Your task to perform on an android device: What's on the menu at IHOP? Image 0: 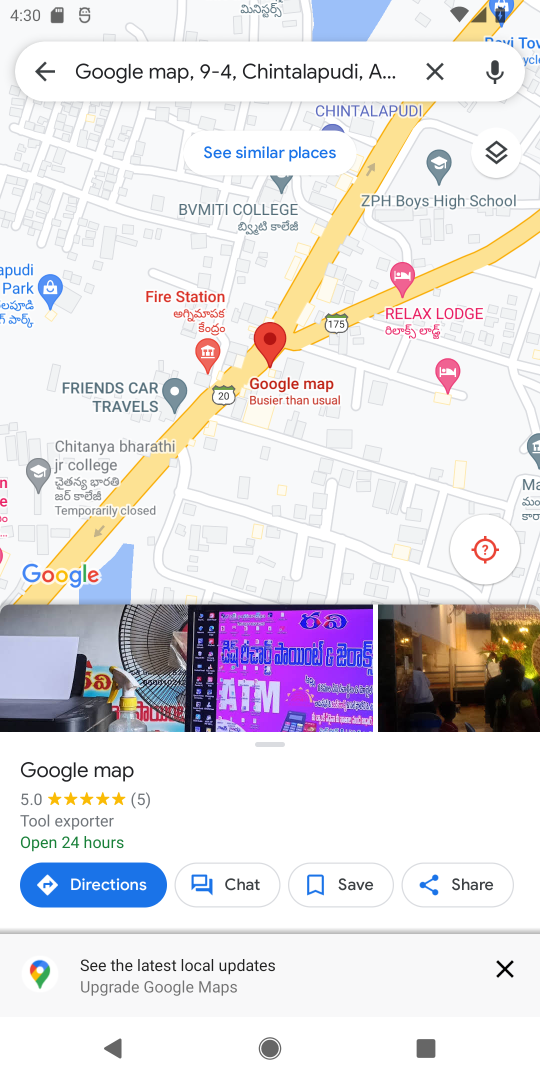
Step 0: click (506, 953)
Your task to perform on an android device: What's on the menu at IHOP? Image 1: 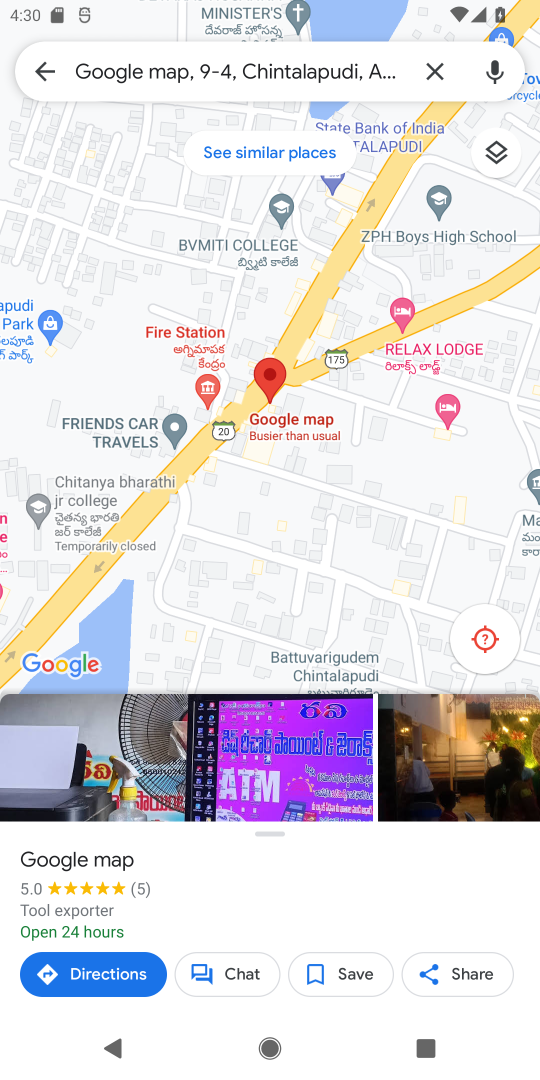
Step 1: click (437, 64)
Your task to perform on an android device: What's on the menu at IHOP? Image 2: 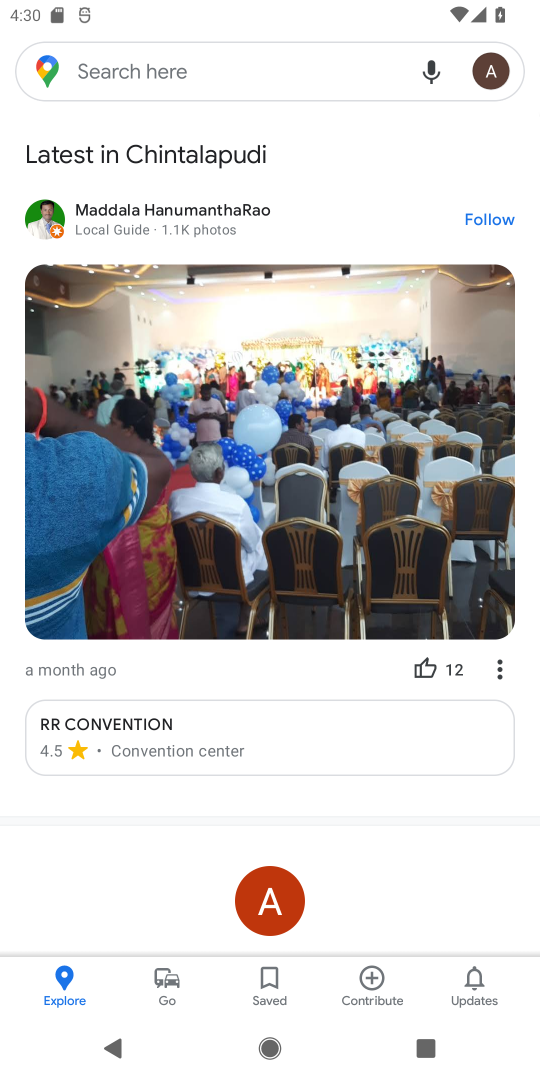
Step 2: press back button
Your task to perform on an android device: What's on the menu at IHOP? Image 3: 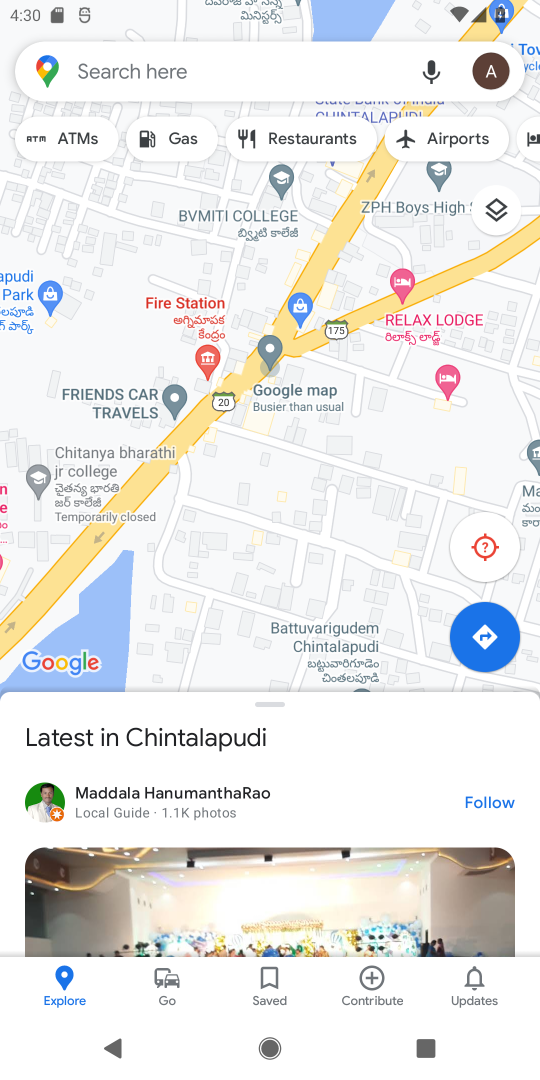
Step 3: press back button
Your task to perform on an android device: What's on the menu at IHOP? Image 4: 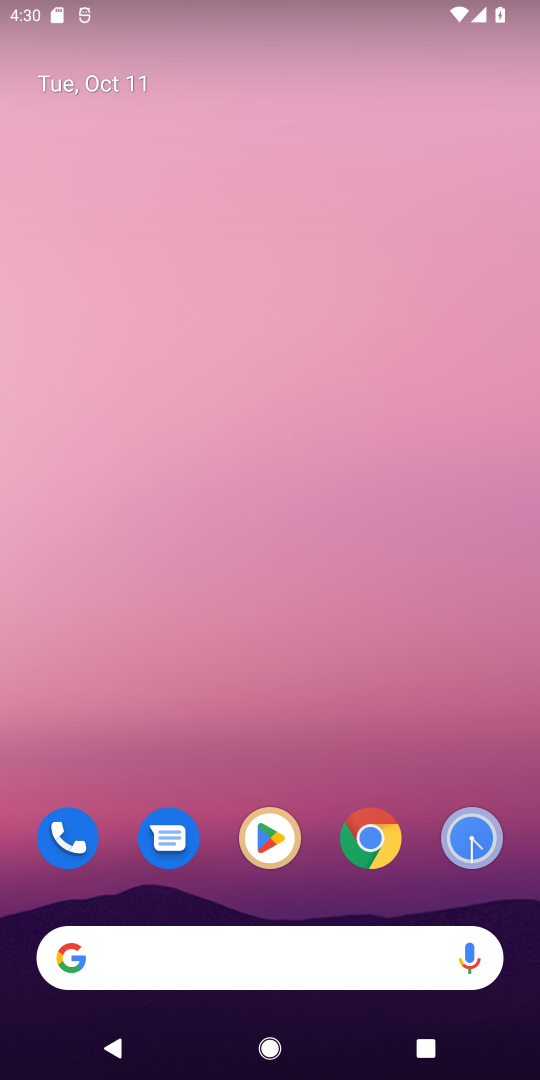
Step 4: click (333, 846)
Your task to perform on an android device: What's on the menu at IHOP? Image 5: 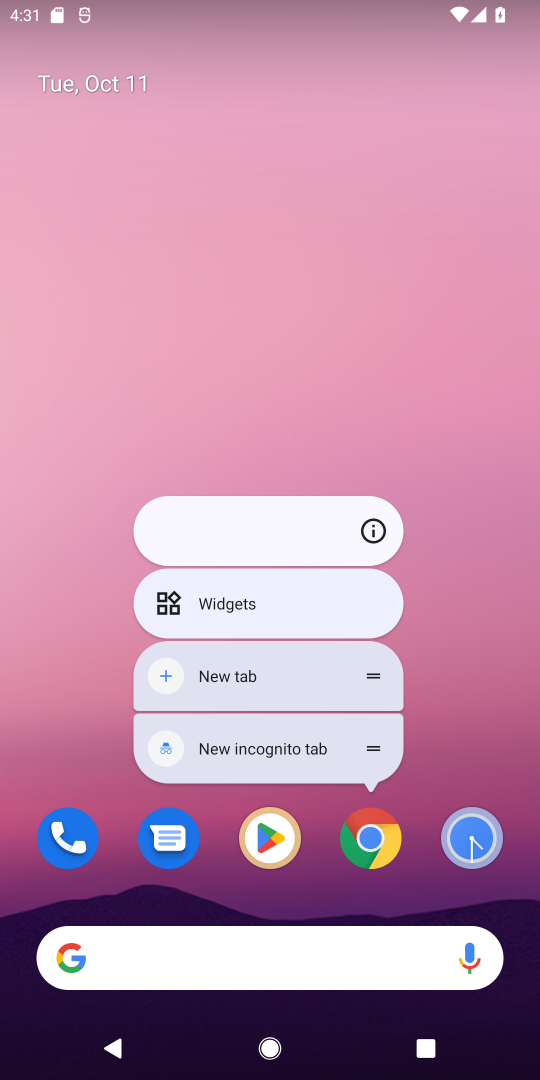
Step 5: click (381, 836)
Your task to perform on an android device: What's on the menu at IHOP? Image 6: 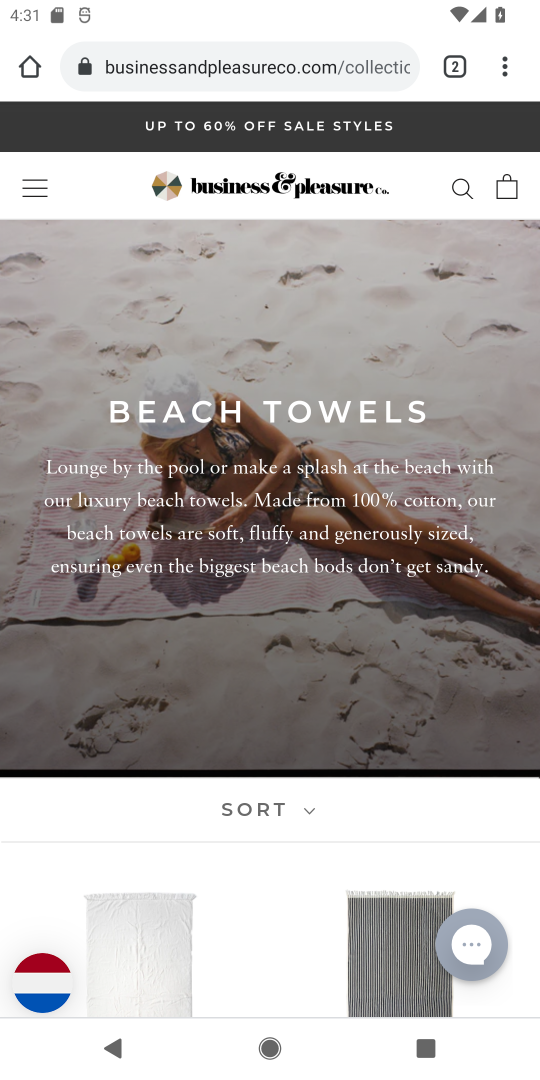
Step 6: click (379, 63)
Your task to perform on an android device: What's on the menu at IHOP? Image 7: 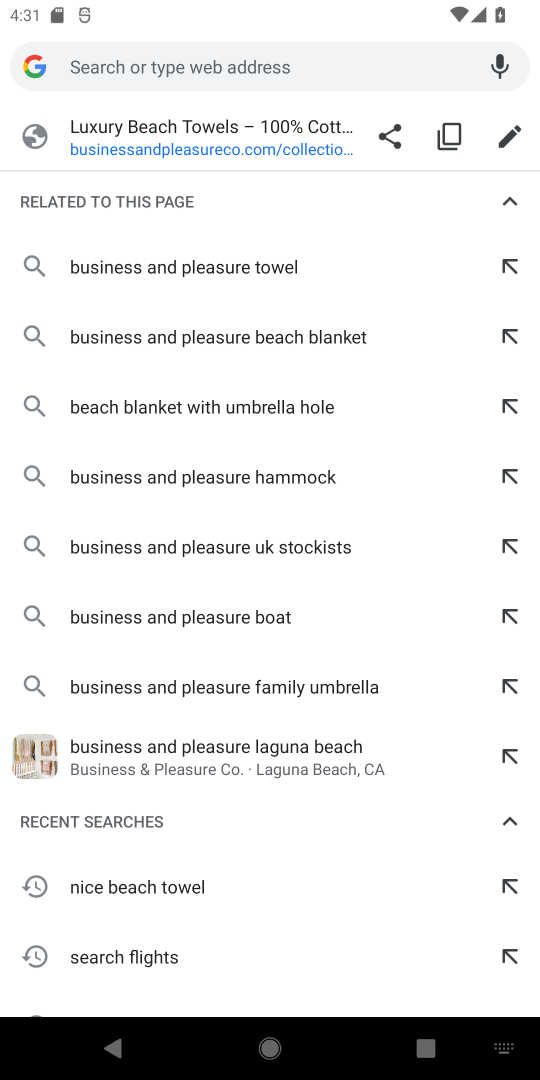
Step 7: type "menu at iHop"
Your task to perform on an android device: What's on the menu at IHOP? Image 8: 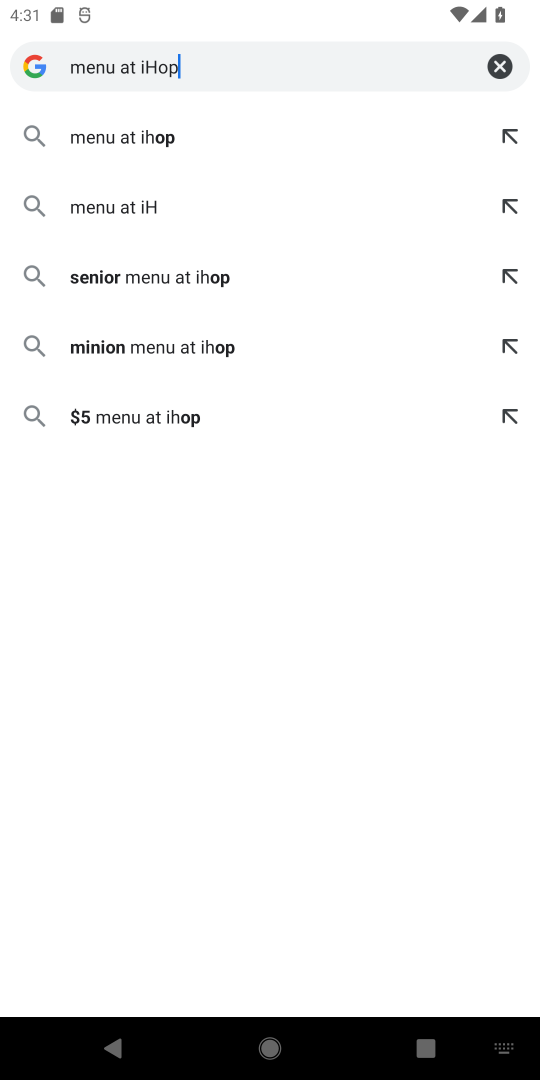
Step 8: type ""
Your task to perform on an android device: What's on the menu at IHOP? Image 9: 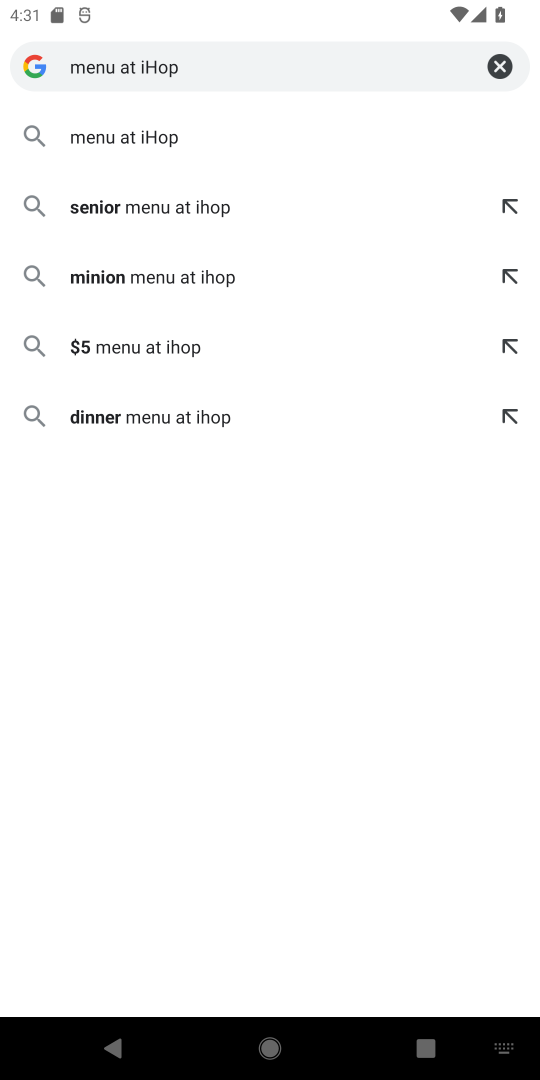
Step 9: click (89, 145)
Your task to perform on an android device: What's on the menu at IHOP? Image 10: 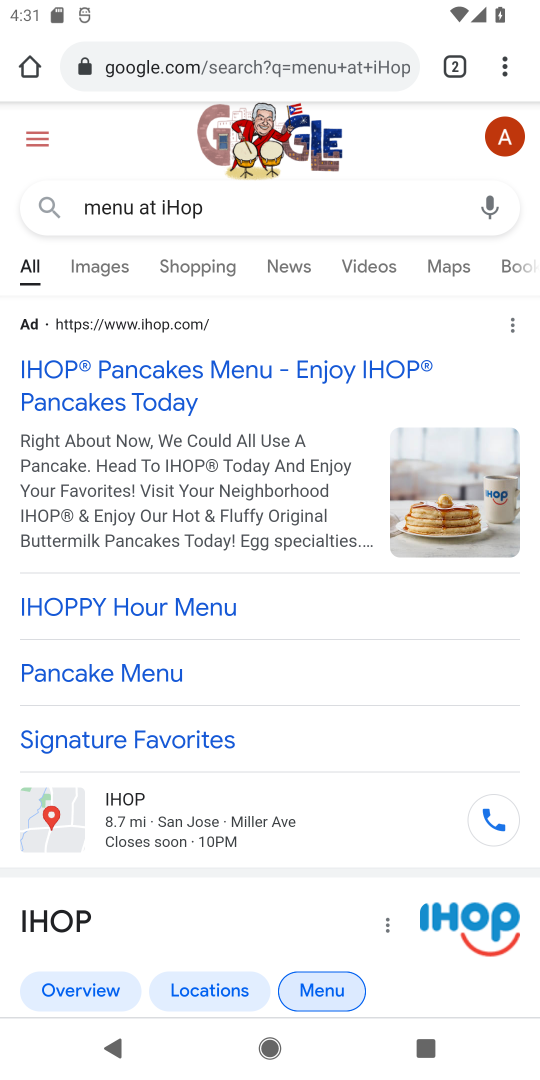
Step 10: click (150, 366)
Your task to perform on an android device: What's on the menu at IHOP? Image 11: 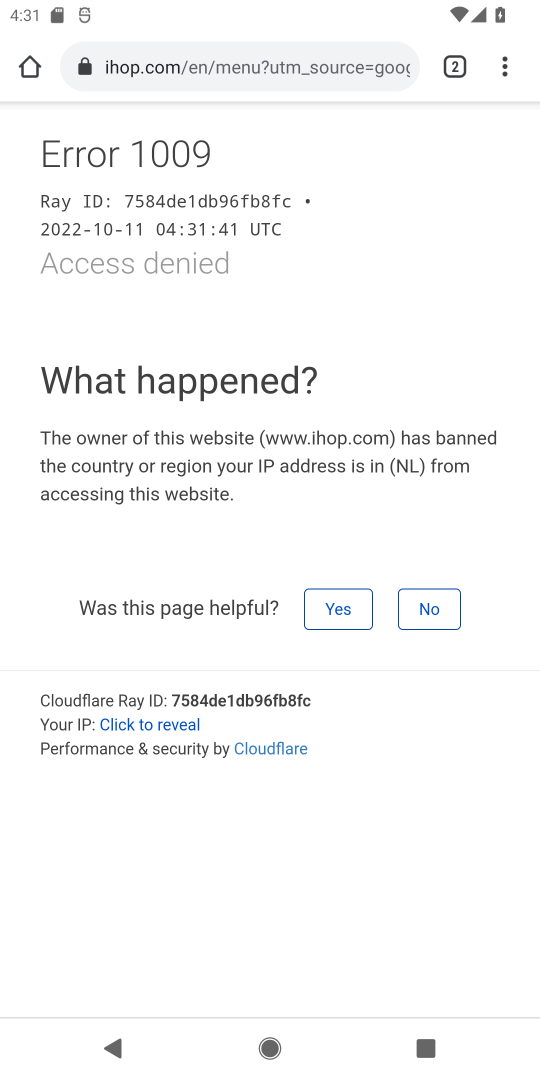
Step 11: press back button
Your task to perform on an android device: What's on the menu at IHOP? Image 12: 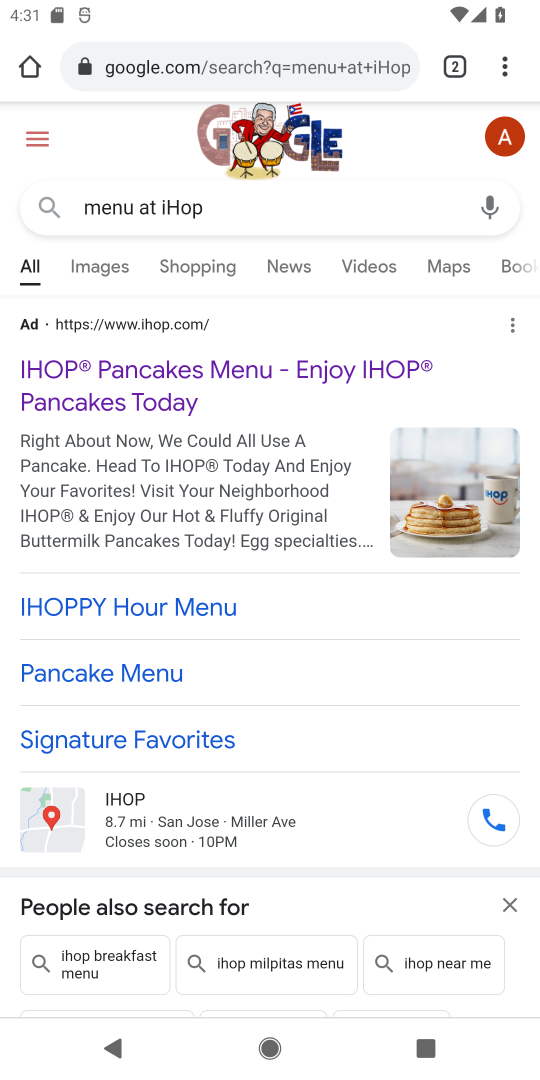
Step 12: drag from (348, 653) to (360, 152)
Your task to perform on an android device: What's on the menu at IHOP? Image 13: 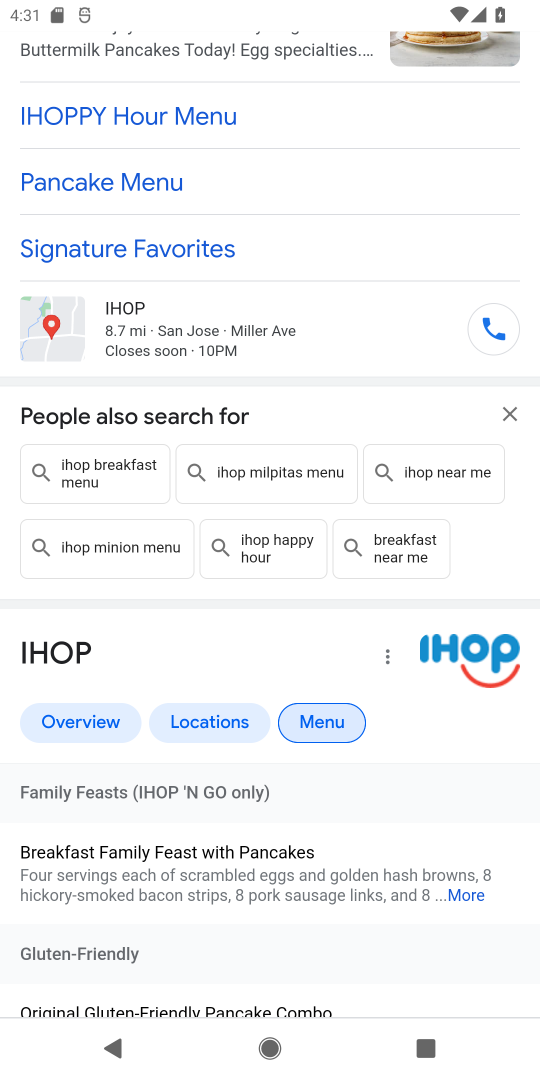
Step 13: click (55, 653)
Your task to perform on an android device: What's on the menu at IHOP? Image 14: 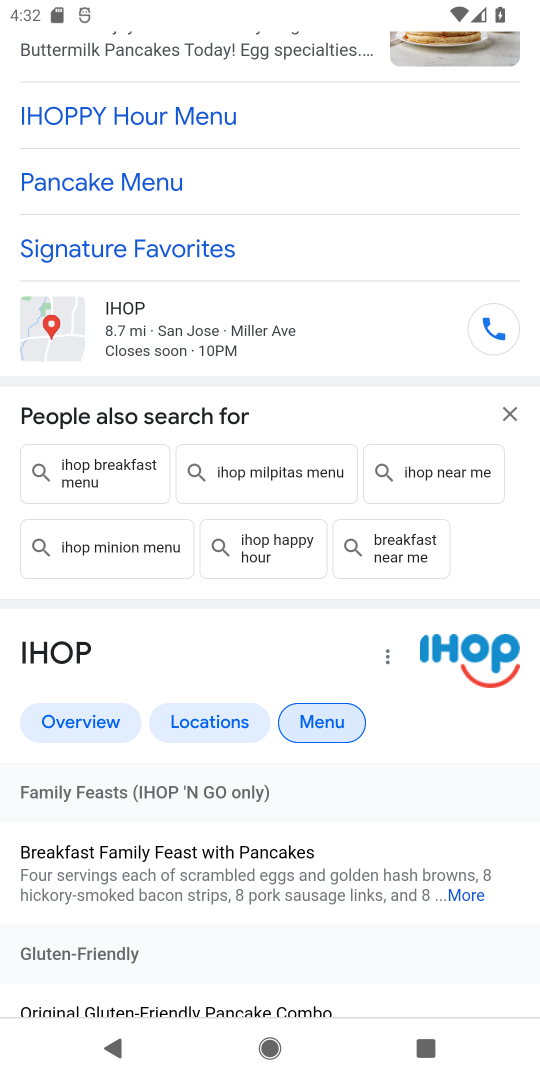
Step 14: drag from (223, 880) to (251, 422)
Your task to perform on an android device: What's on the menu at IHOP? Image 15: 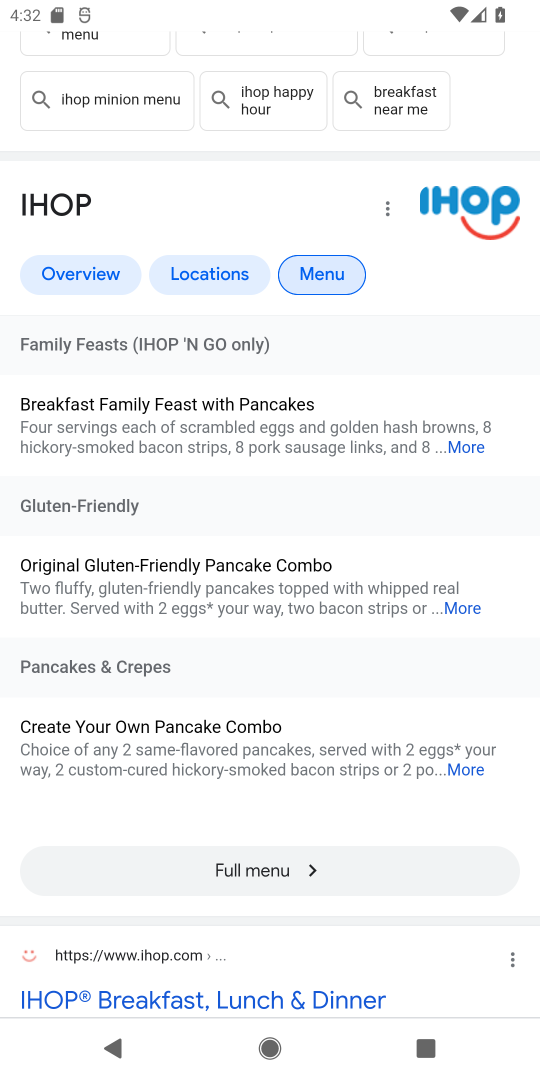
Step 15: click (259, 867)
Your task to perform on an android device: What's on the menu at IHOP? Image 16: 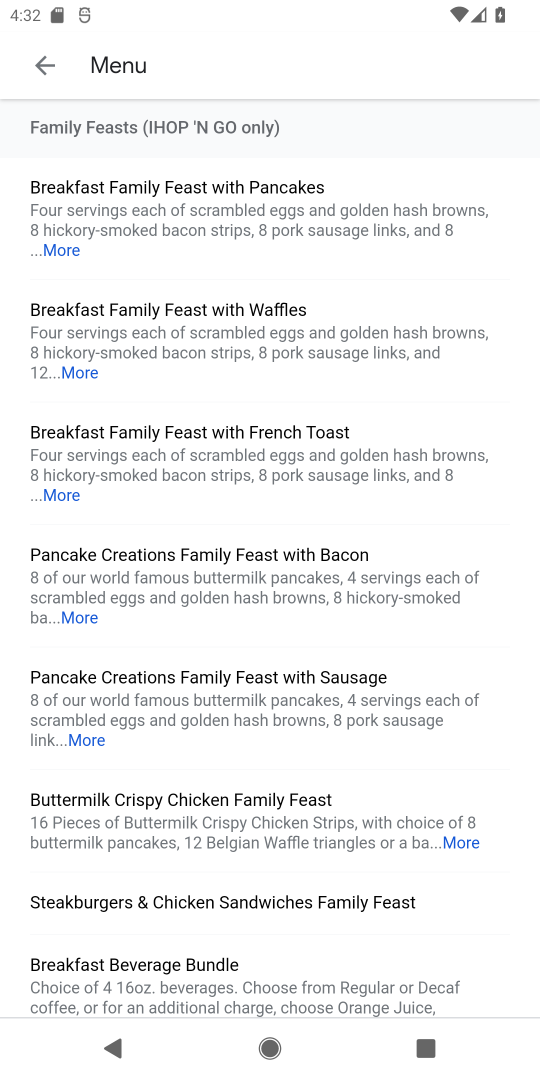
Step 16: task complete